Your task to perform on an android device: check battery use Image 0: 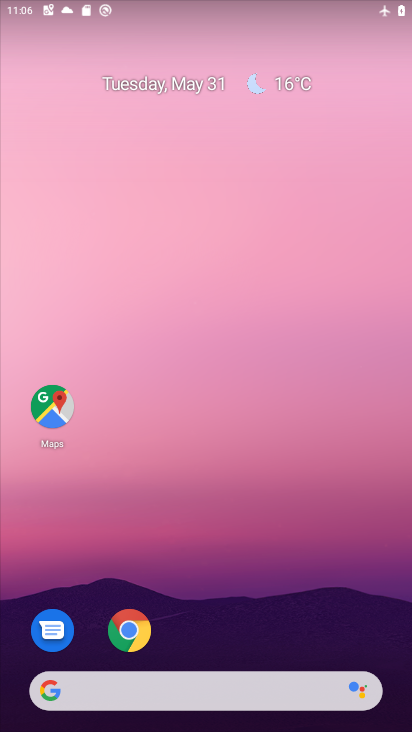
Step 0: drag from (288, 513) to (272, 249)
Your task to perform on an android device: check battery use Image 1: 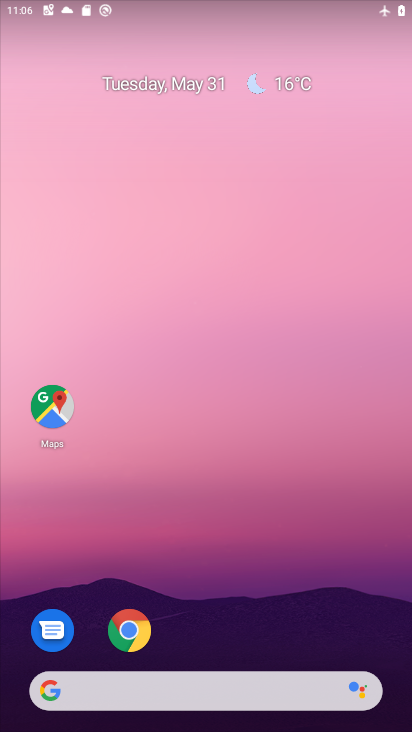
Step 1: drag from (268, 556) to (288, 181)
Your task to perform on an android device: check battery use Image 2: 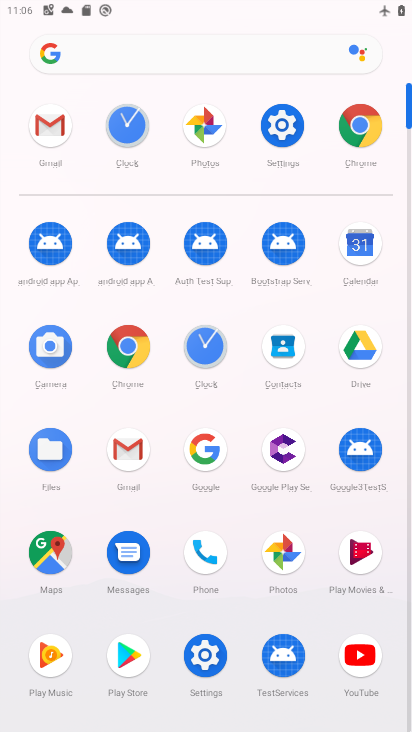
Step 2: click (288, 136)
Your task to perform on an android device: check battery use Image 3: 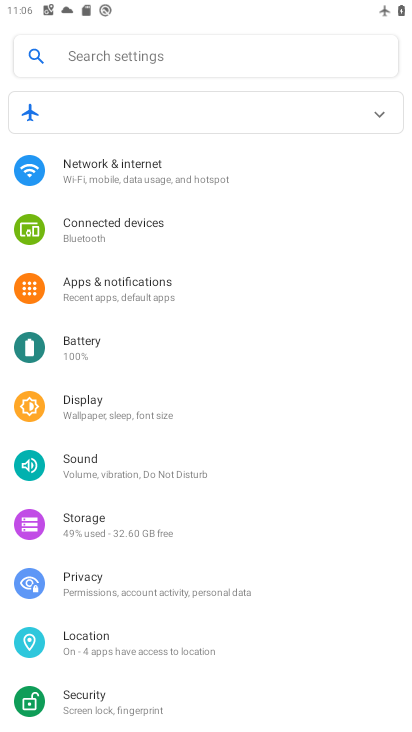
Step 3: drag from (182, 643) to (271, 332)
Your task to perform on an android device: check battery use Image 4: 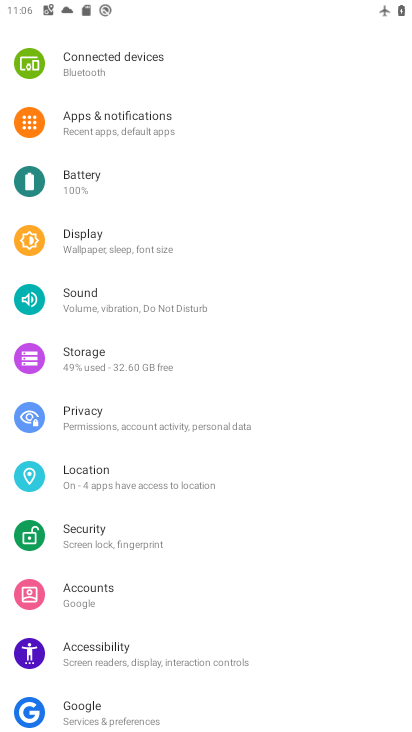
Step 4: drag from (191, 583) to (243, 619)
Your task to perform on an android device: check battery use Image 5: 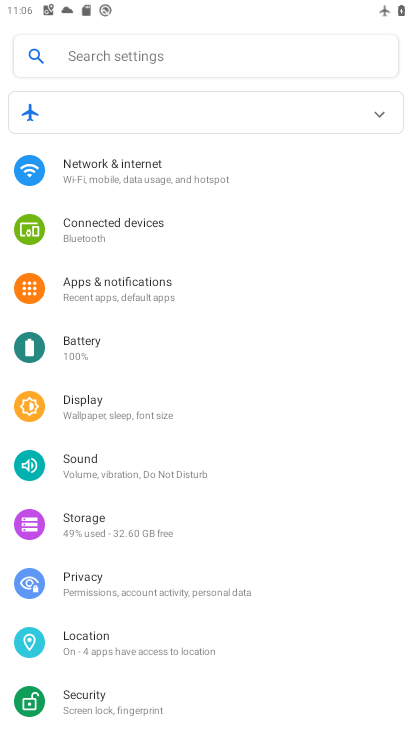
Step 5: click (105, 334)
Your task to perform on an android device: check battery use Image 6: 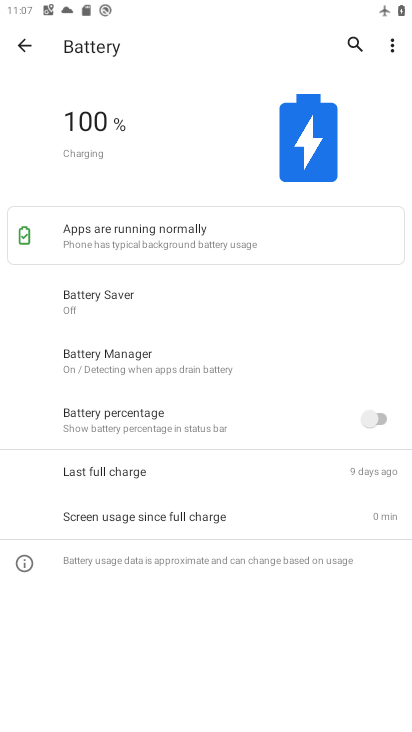
Step 6: click (390, 42)
Your task to perform on an android device: check battery use Image 7: 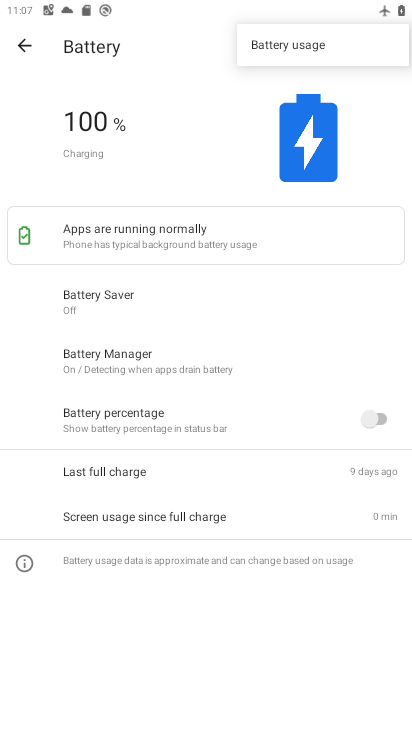
Step 7: click (340, 44)
Your task to perform on an android device: check battery use Image 8: 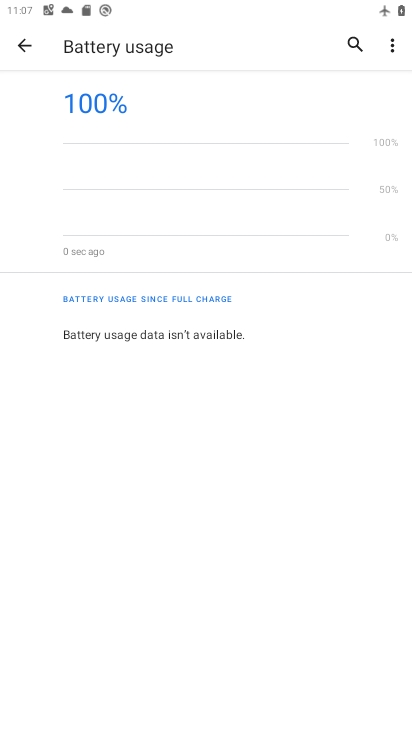
Step 8: task complete